Your task to perform on an android device: find snoozed emails in the gmail app Image 0: 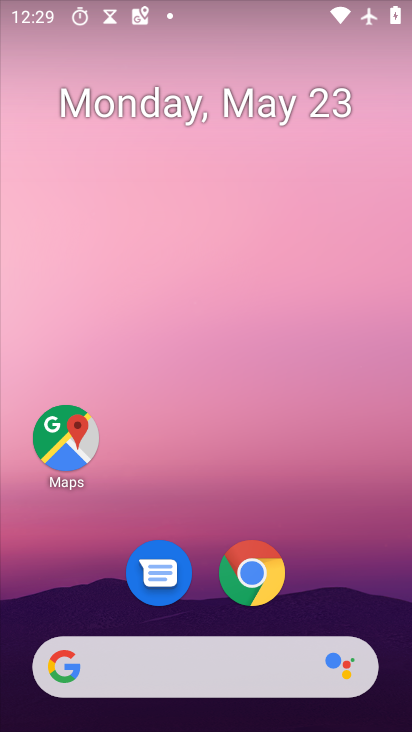
Step 0: press home button
Your task to perform on an android device: find snoozed emails in the gmail app Image 1: 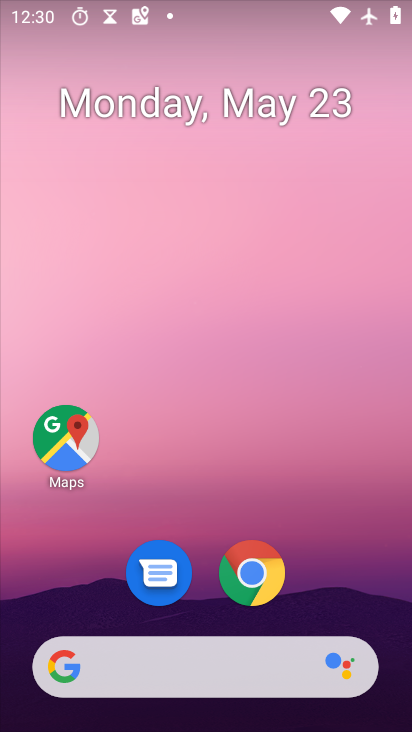
Step 1: drag from (178, 637) to (285, 72)
Your task to perform on an android device: find snoozed emails in the gmail app Image 2: 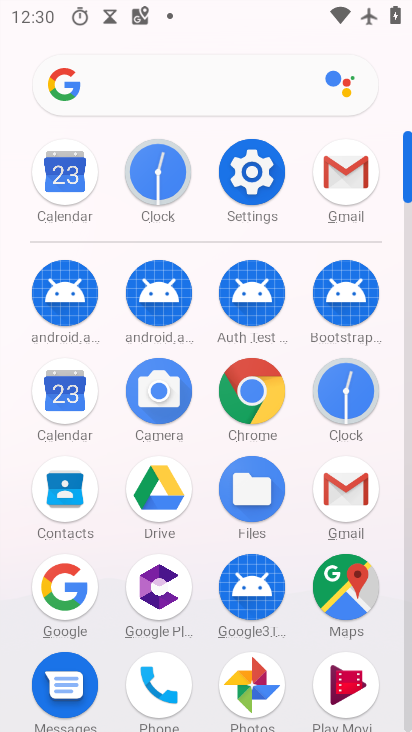
Step 2: click (340, 491)
Your task to perform on an android device: find snoozed emails in the gmail app Image 3: 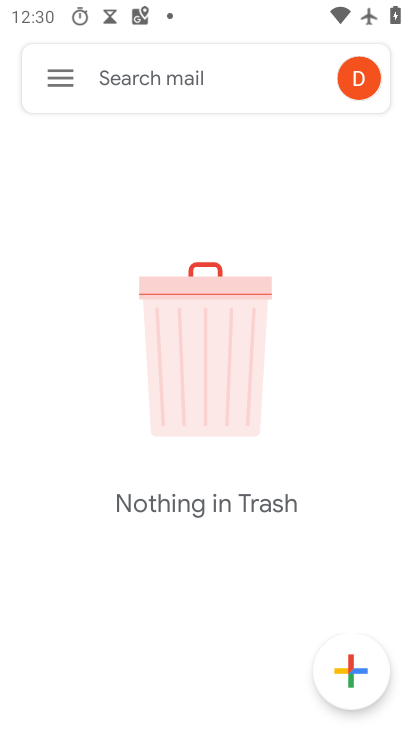
Step 3: click (65, 70)
Your task to perform on an android device: find snoozed emails in the gmail app Image 4: 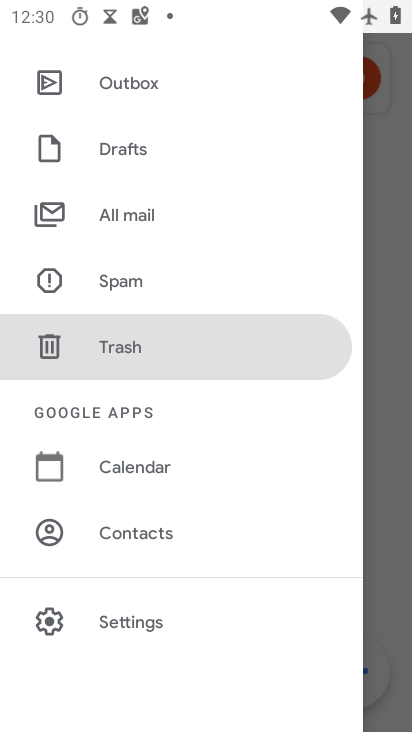
Step 4: drag from (198, 156) to (161, 519)
Your task to perform on an android device: find snoozed emails in the gmail app Image 5: 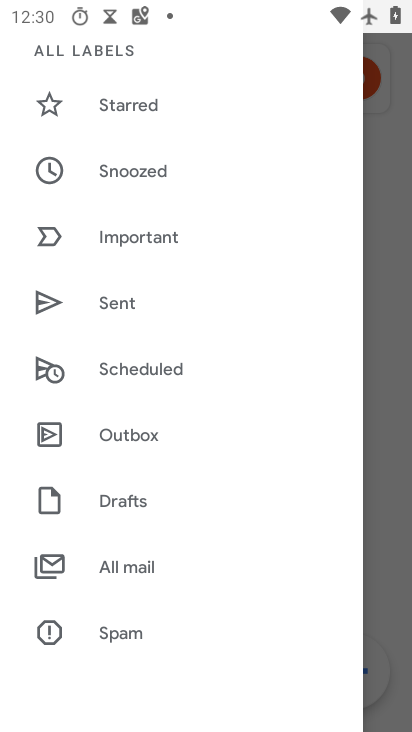
Step 5: click (138, 169)
Your task to perform on an android device: find snoozed emails in the gmail app Image 6: 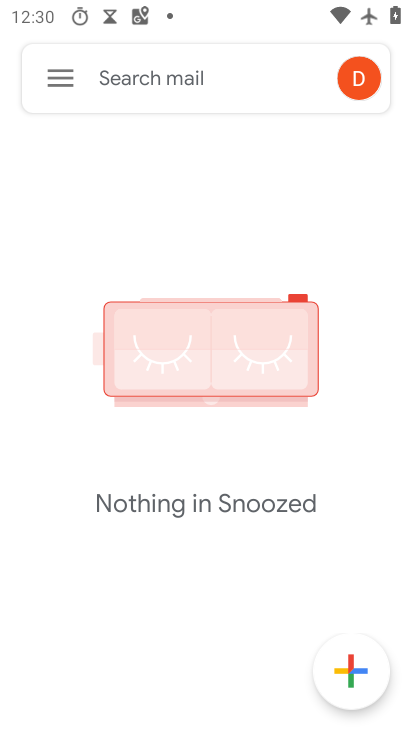
Step 6: task complete